Your task to perform on an android device: toggle show notifications on the lock screen Image 0: 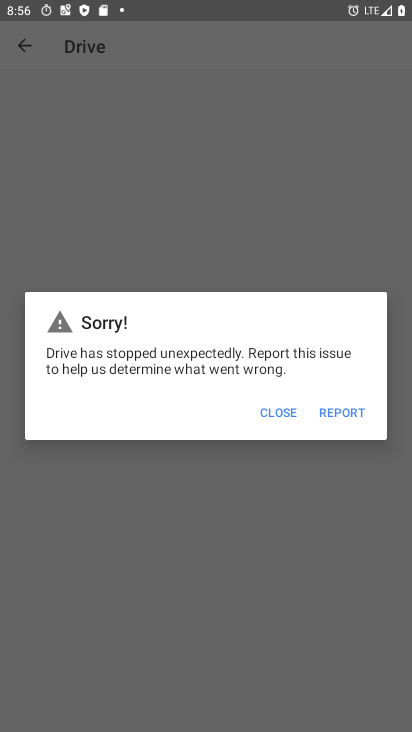
Step 0: press home button
Your task to perform on an android device: toggle show notifications on the lock screen Image 1: 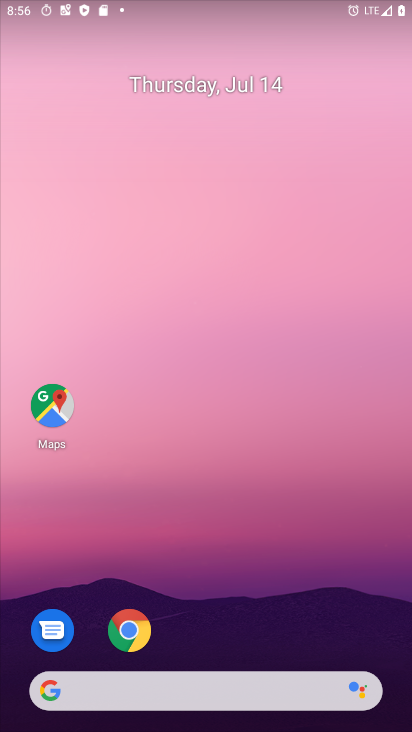
Step 1: drag from (226, 726) to (231, 206)
Your task to perform on an android device: toggle show notifications on the lock screen Image 2: 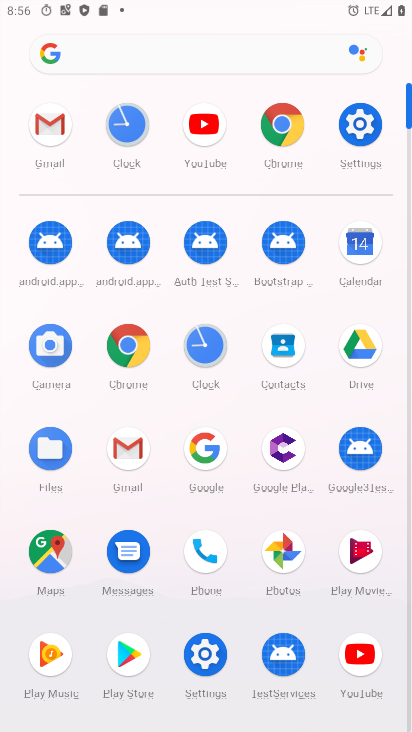
Step 2: click (349, 125)
Your task to perform on an android device: toggle show notifications on the lock screen Image 3: 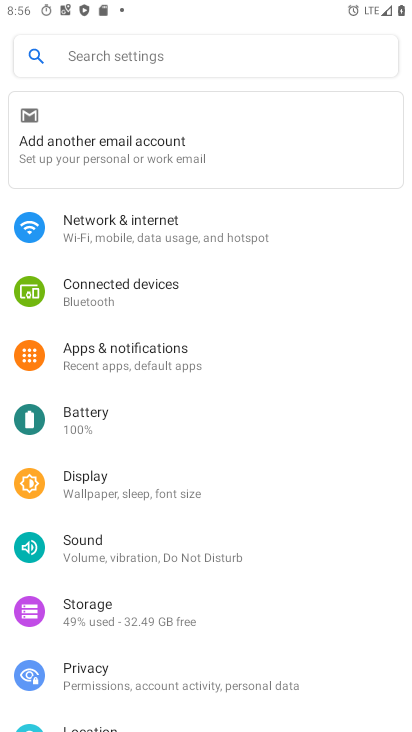
Step 3: click (106, 362)
Your task to perform on an android device: toggle show notifications on the lock screen Image 4: 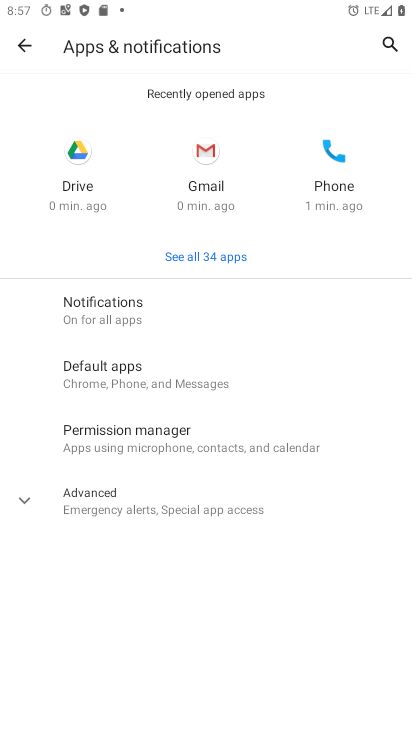
Step 4: click (92, 314)
Your task to perform on an android device: toggle show notifications on the lock screen Image 5: 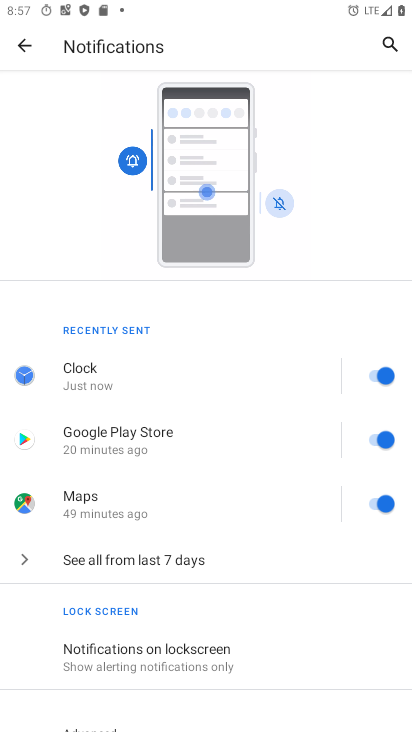
Step 5: click (153, 656)
Your task to perform on an android device: toggle show notifications on the lock screen Image 6: 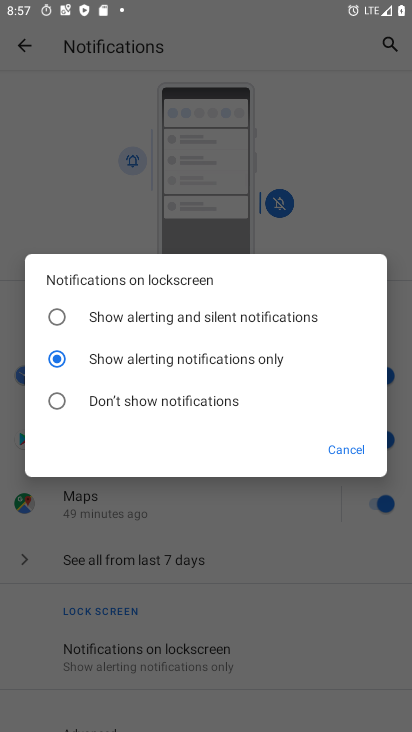
Step 6: click (58, 401)
Your task to perform on an android device: toggle show notifications on the lock screen Image 7: 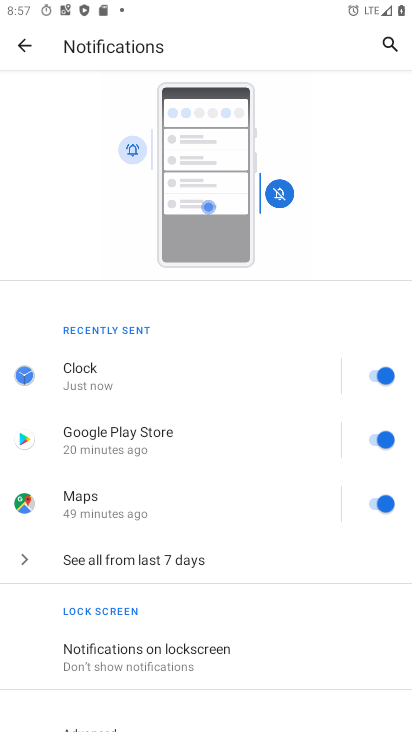
Step 7: task complete